Your task to perform on an android device: Go to location settings Image 0: 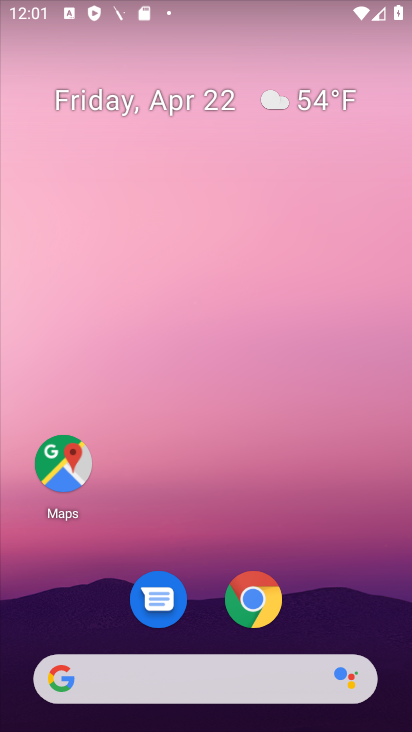
Step 0: drag from (223, 502) to (196, 11)
Your task to perform on an android device: Go to location settings Image 1: 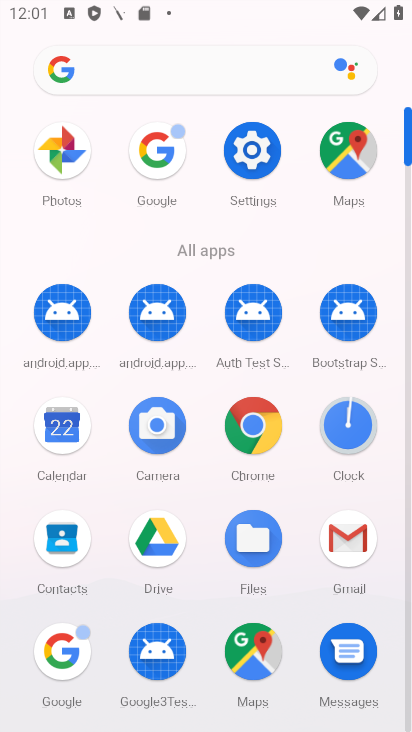
Step 1: click (244, 168)
Your task to perform on an android device: Go to location settings Image 2: 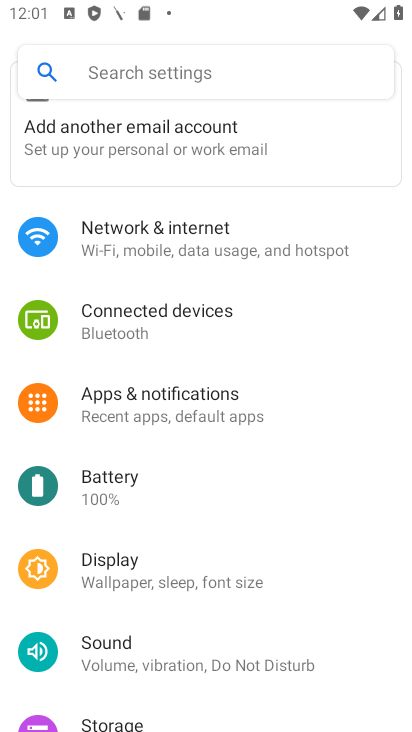
Step 2: drag from (187, 541) to (189, 218)
Your task to perform on an android device: Go to location settings Image 3: 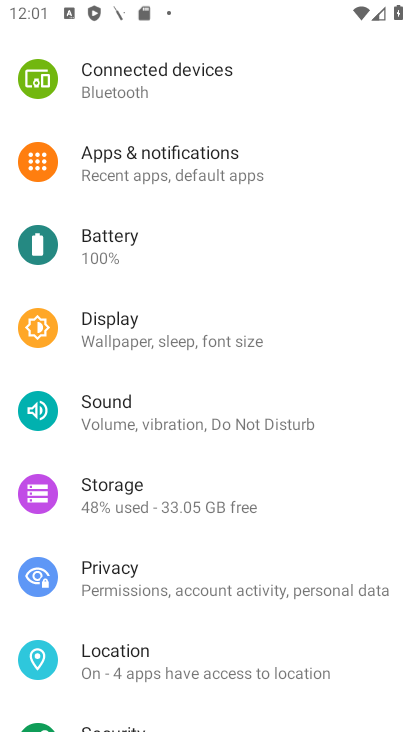
Step 3: click (175, 651)
Your task to perform on an android device: Go to location settings Image 4: 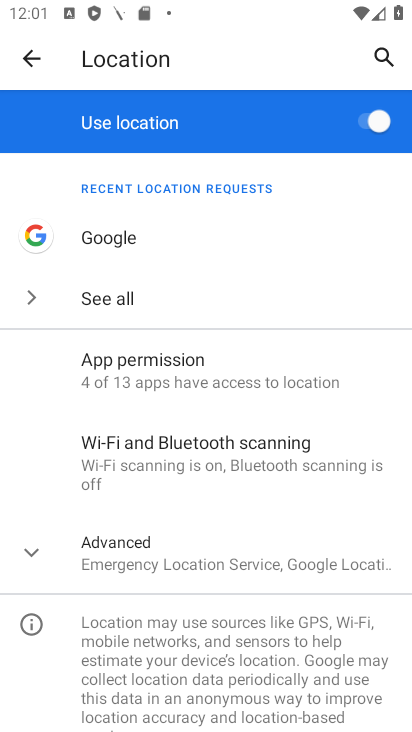
Step 4: task complete